Your task to perform on an android device: turn off priority inbox in the gmail app Image 0: 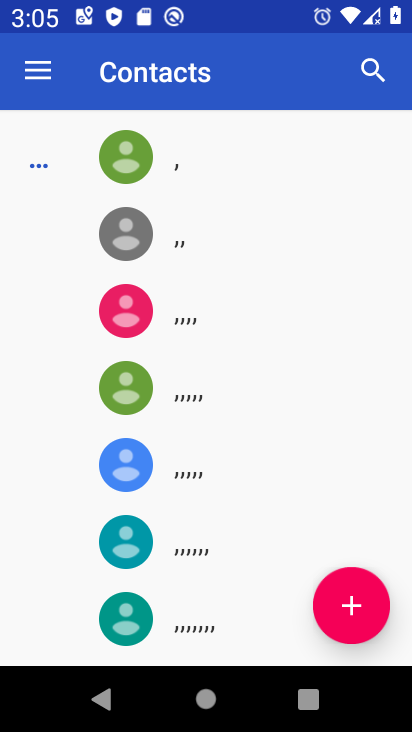
Step 0: press home button
Your task to perform on an android device: turn off priority inbox in the gmail app Image 1: 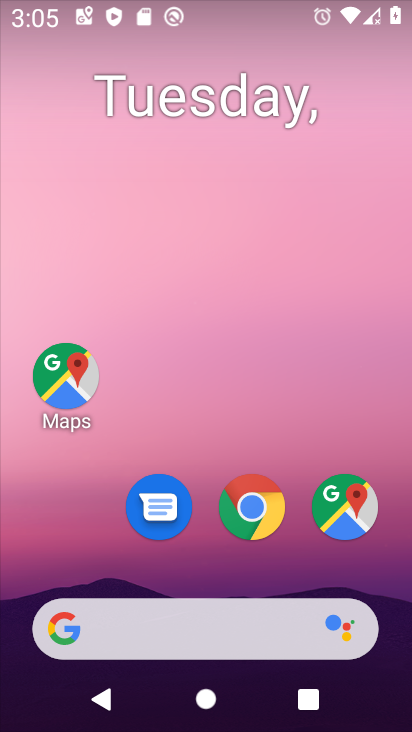
Step 1: drag from (278, 573) to (331, 193)
Your task to perform on an android device: turn off priority inbox in the gmail app Image 2: 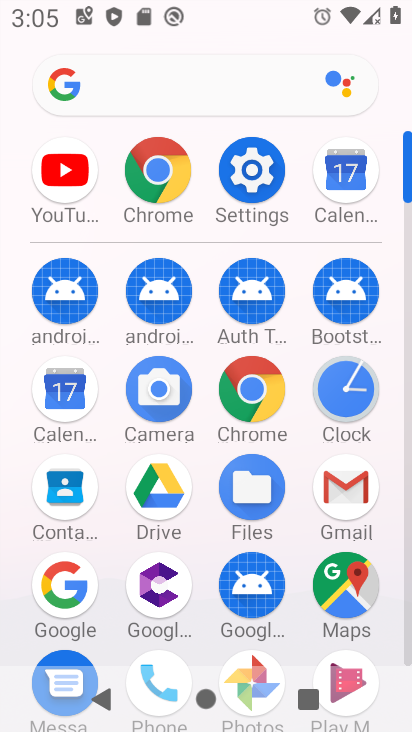
Step 2: click (362, 486)
Your task to perform on an android device: turn off priority inbox in the gmail app Image 3: 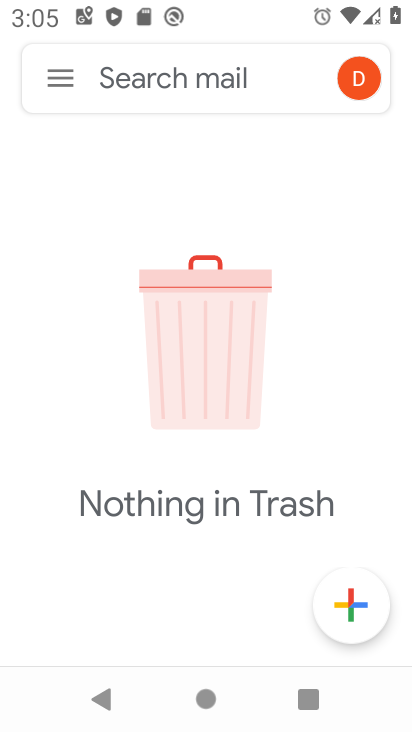
Step 3: click (45, 70)
Your task to perform on an android device: turn off priority inbox in the gmail app Image 4: 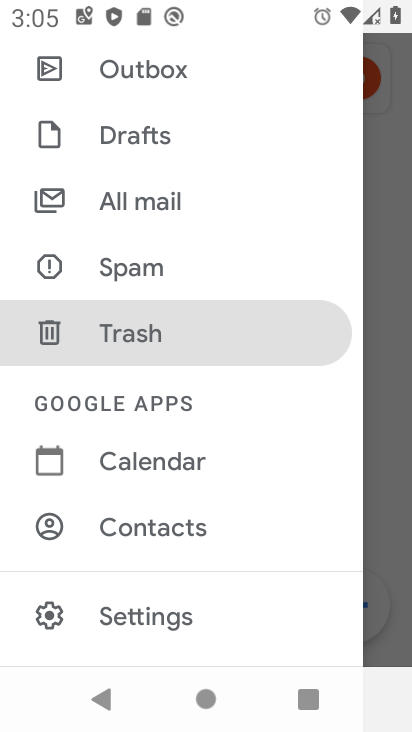
Step 4: click (124, 600)
Your task to perform on an android device: turn off priority inbox in the gmail app Image 5: 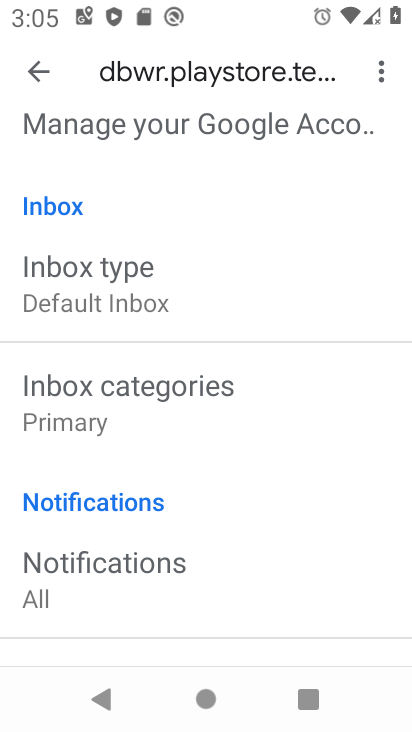
Step 5: click (80, 283)
Your task to perform on an android device: turn off priority inbox in the gmail app Image 6: 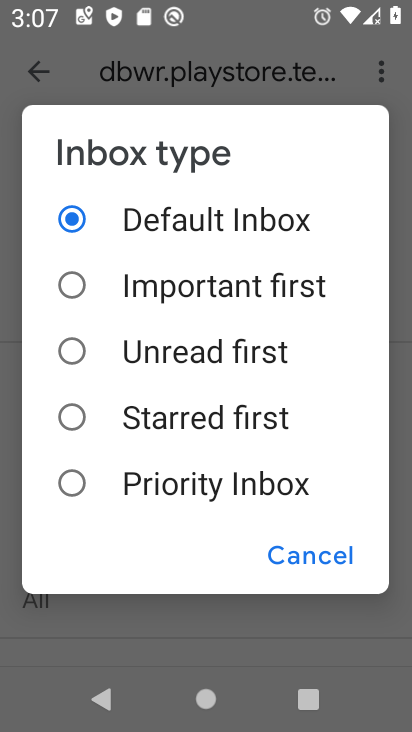
Step 6: task complete